Your task to perform on an android device: turn off wifi Image 0: 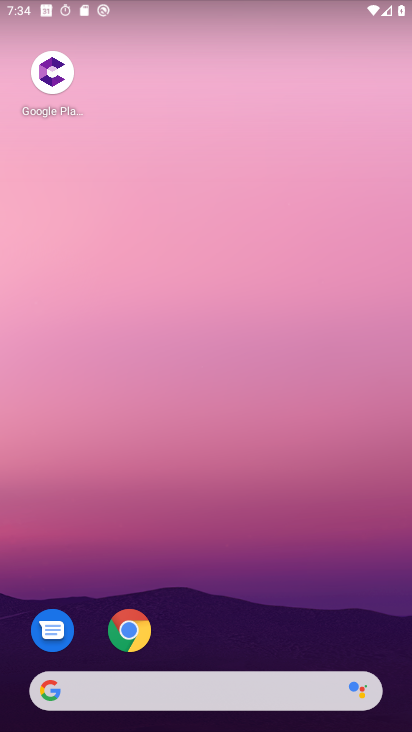
Step 0: drag from (197, 657) to (273, 15)
Your task to perform on an android device: turn off wifi Image 1: 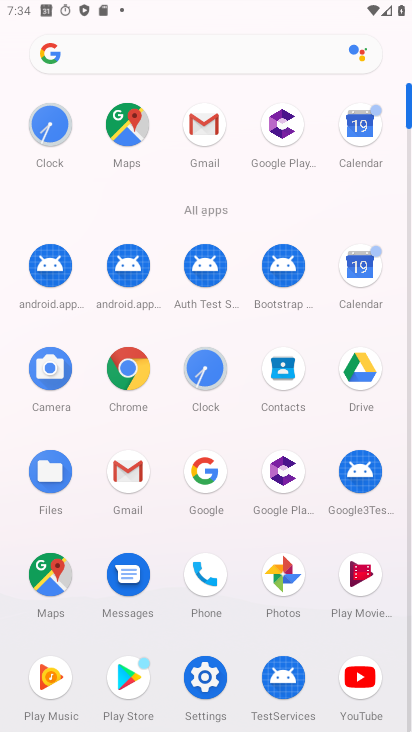
Step 1: click (196, 667)
Your task to perform on an android device: turn off wifi Image 2: 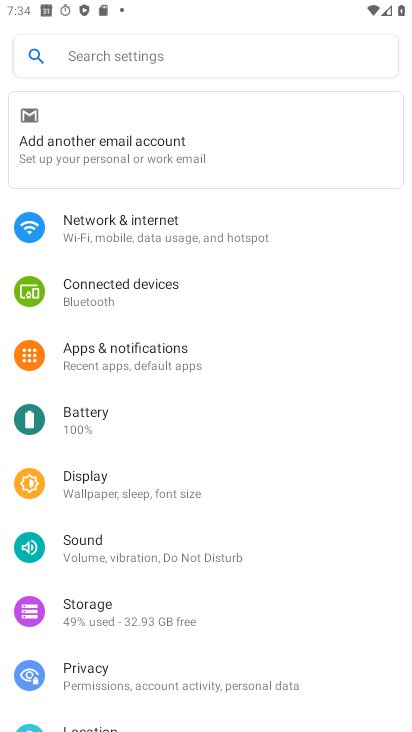
Step 2: click (101, 237)
Your task to perform on an android device: turn off wifi Image 3: 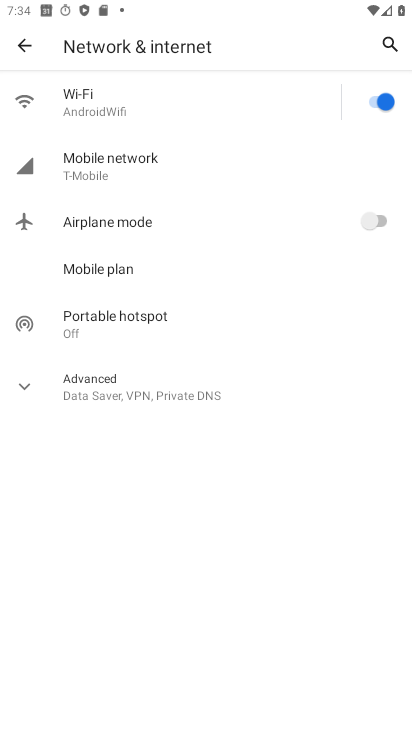
Step 3: click (372, 94)
Your task to perform on an android device: turn off wifi Image 4: 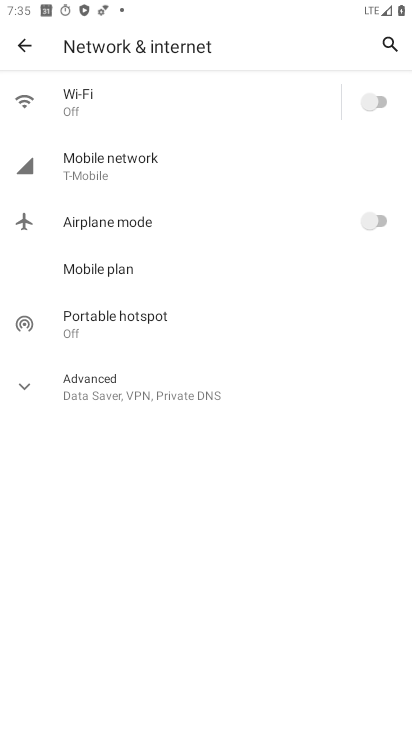
Step 4: task complete